Your task to perform on an android device: Open battery settings Image 0: 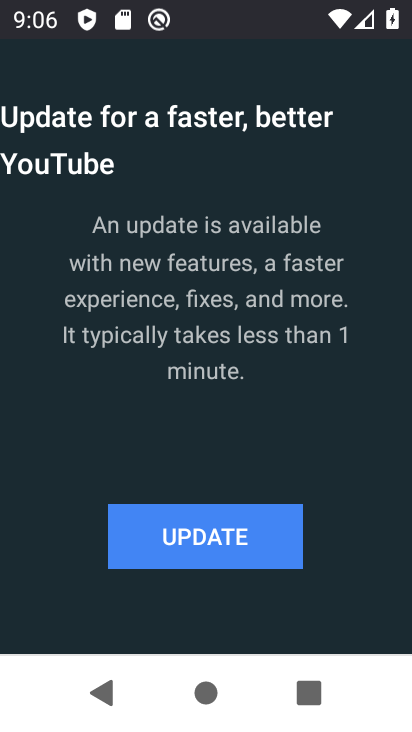
Step 0: press home button
Your task to perform on an android device: Open battery settings Image 1: 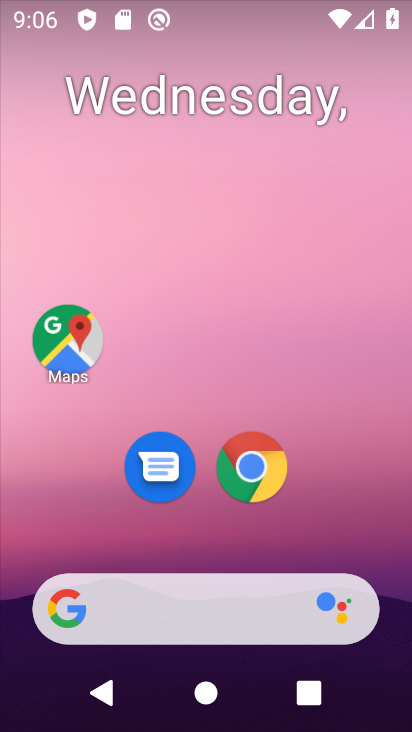
Step 1: drag from (336, 496) to (352, 107)
Your task to perform on an android device: Open battery settings Image 2: 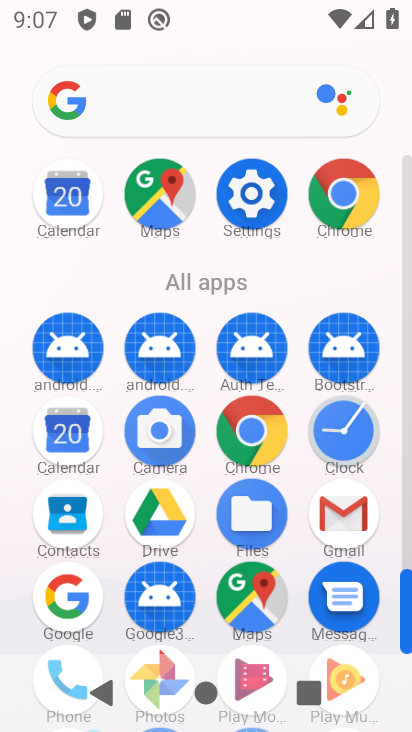
Step 2: drag from (214, 549) to (247, 212)
Your task to perform on an android device: Open battery settings Image 3: 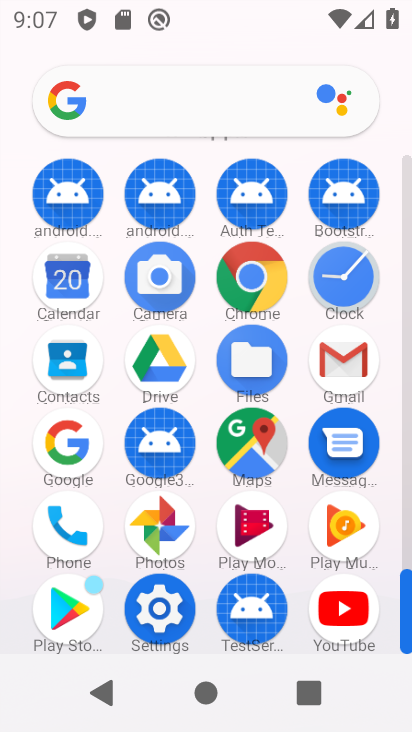
Step 3: click (161, 608)
Your task to perform on an android device: Open battery settings Image 4: 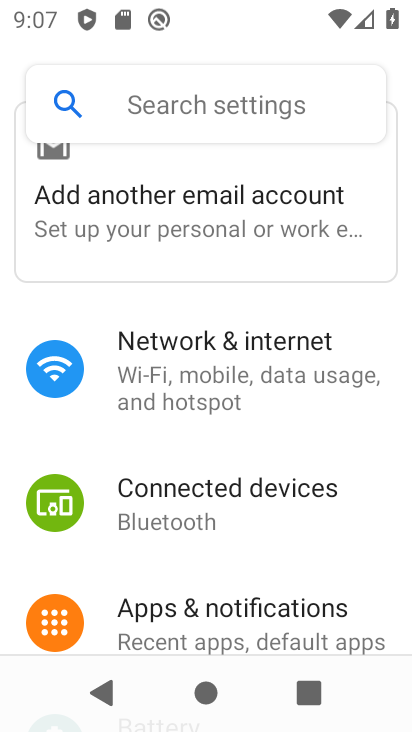
Step 4: drag from (234, 661) to (307, 91)
Your task to perform on an android device: Open battery settings Image 5: 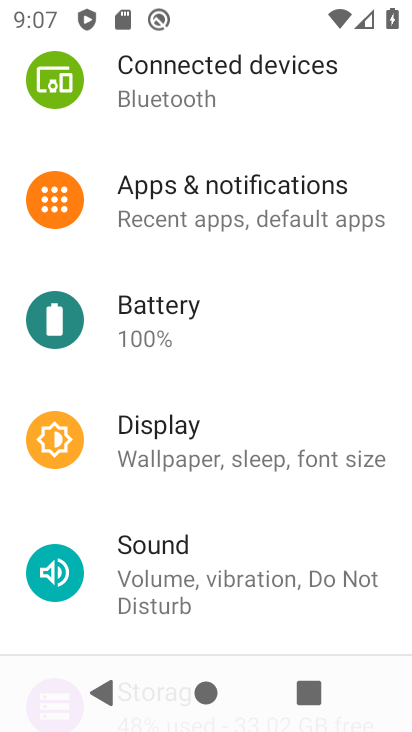
Step 5: click (131, 332)
Your task to perform on an android device: Open battery settings Image 6: 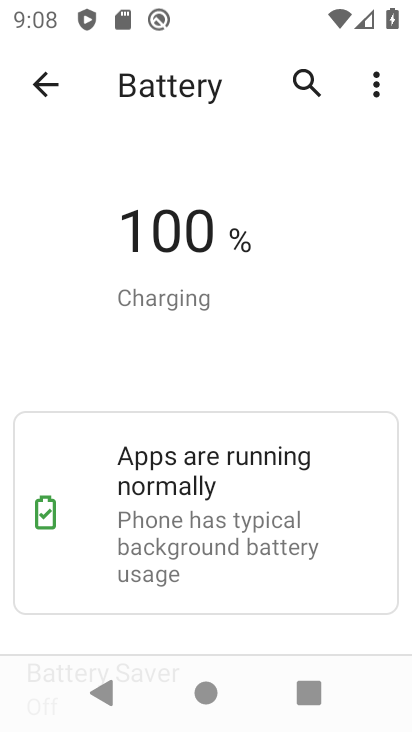
Step 6: task complete